Your task to perform on an android device: Show me recent news Image 0: 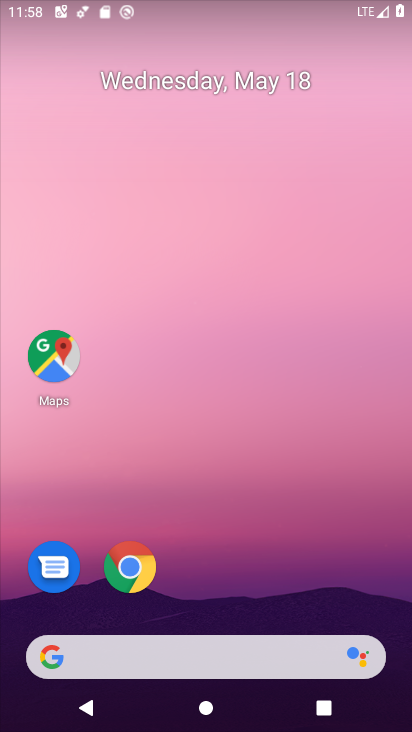
Step 0: drag from (312, 576) to (338, 52)
Your task to perform on an android device: Show me recent news Image 1: 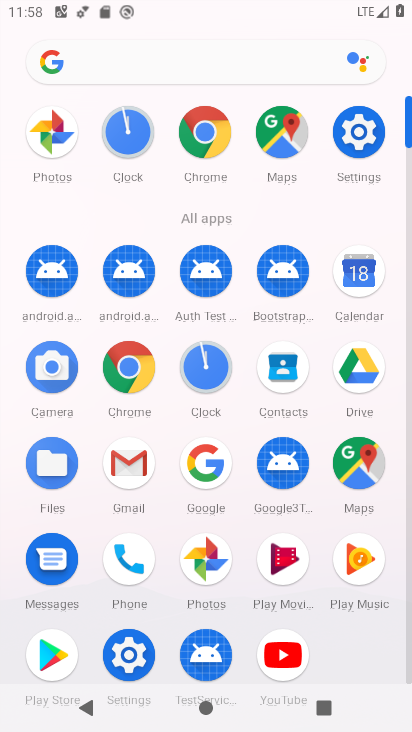
Step 1: click (195, 138)
Your task to perform on an android device: Show me recent news Image 2: 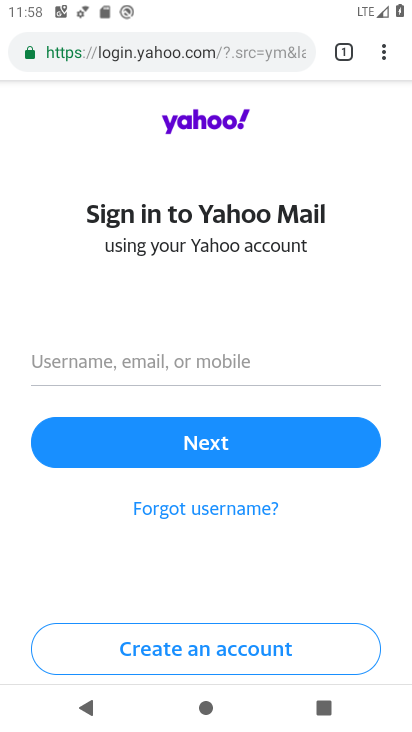
Step 2: task complete